Your task to perform on an android device: snooze an email in the gmail app Image 0: 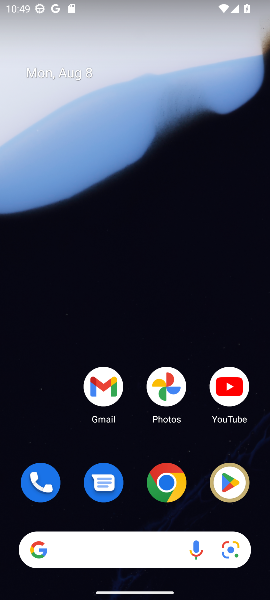
Step 0: click (102, 386)
Your task to perform on an android device: snooze an email in the gmail app Image 1: 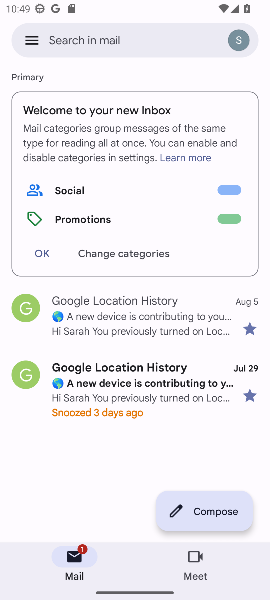
Step 1: click (150, 310)
Your task to perform on an android device: snooze an email in the gmail app Image 2: 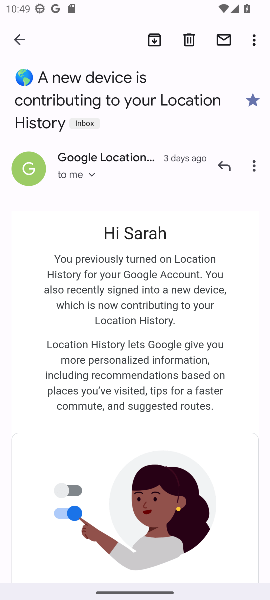
Step 2: click (255, 47)
Your task to perform on an android device: snooze an email in the gmail app Image 3: 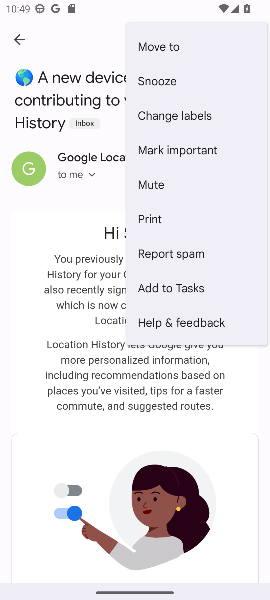
Step 3: click (148, 87)
Your task to perform on an android device: snooze an email in the gmail app Image 4: 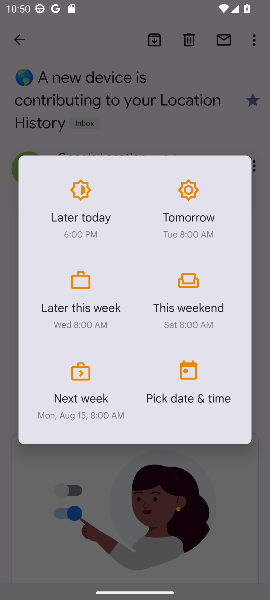
Step 4: click (86, 200)
Your task to perform on an android device: snooze an email in the gmail app Image 5: 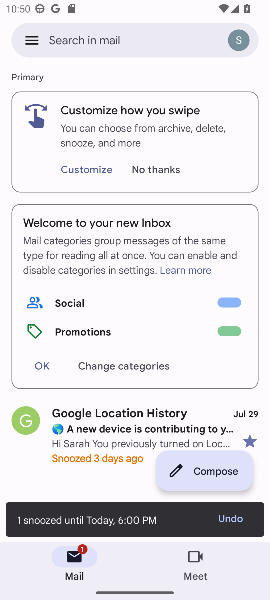
Step 5: task complete